Your task to perform on an android device: Check the weather Image 0: 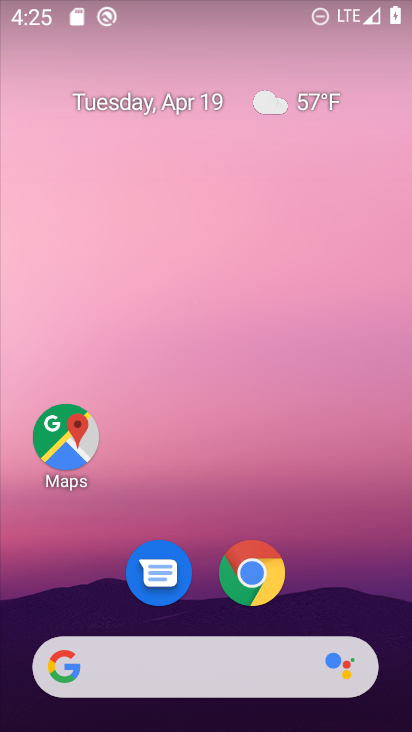
Step 0: click (312, 105)
Your task to perform on an android device: Check the weather Image 1: 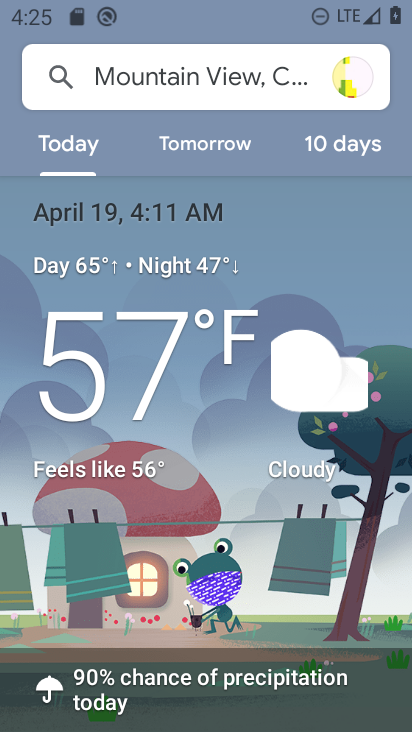
Step 1: task complete